Your task to perform on an android device: turn off notifications settings in the gmail app Image 0: 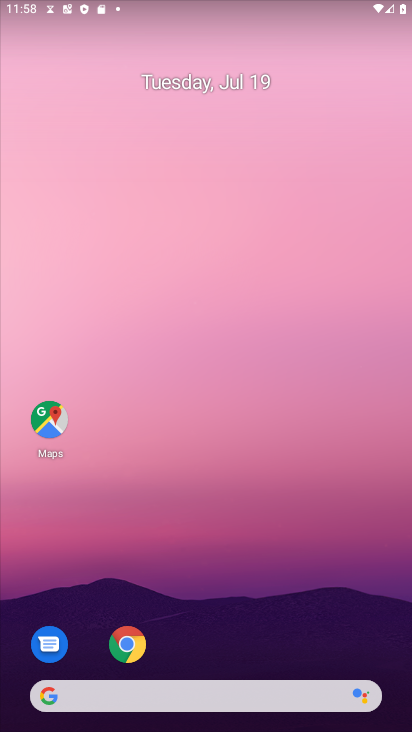
Step 0: press home button
Your task to perform on an android device: turn off notifications settings in the gmail app Image 1: 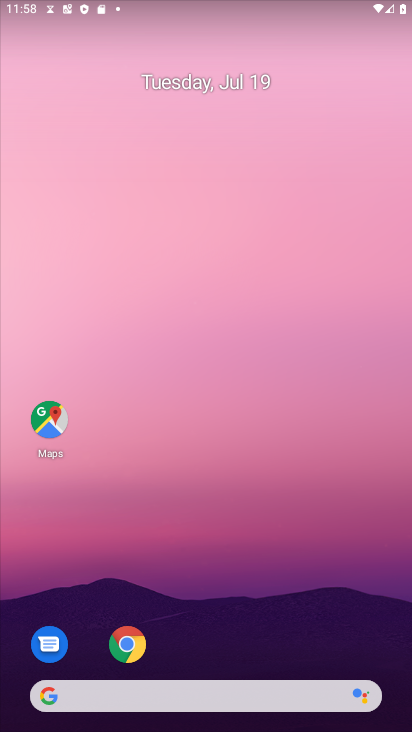
Step 1: drag from (337, 604) to (344, 92)
Your task to perform on an android device: turn off notifications settings in the gmail app Image 2: 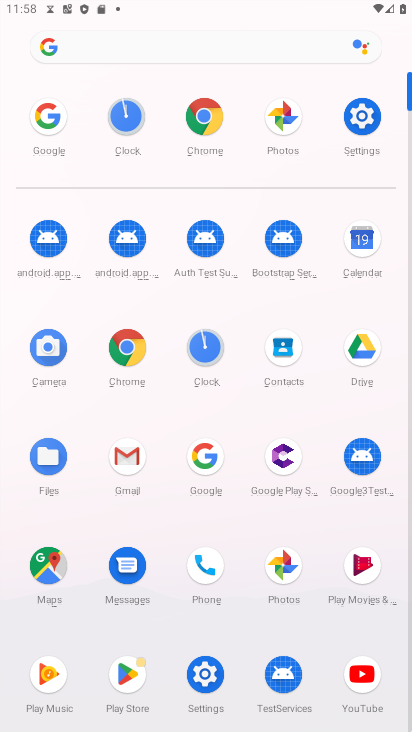
Step 2: click (138, 475)
Your task to perform on an android device: turn off notifications settings in the gmail app Image 3: 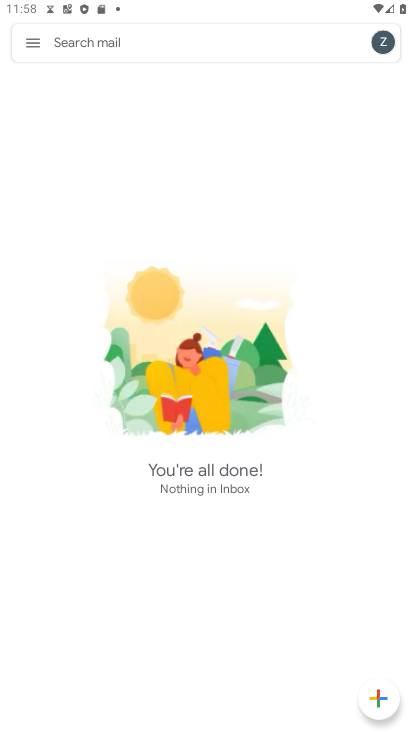
Step 3: press home button
Your task to perform on an android device: turn off notifications settings in the gmail app Image 4: 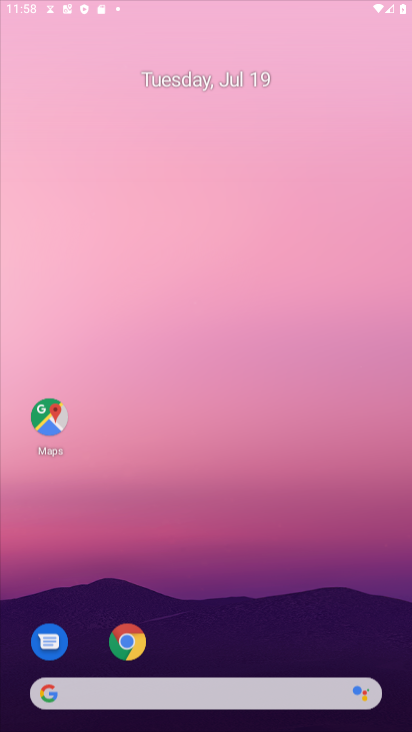
Step 4: drag from (385, 619) to (397, 182)
Your task to perform on an android device: turn off notifications settings in the gmail app Image 5: 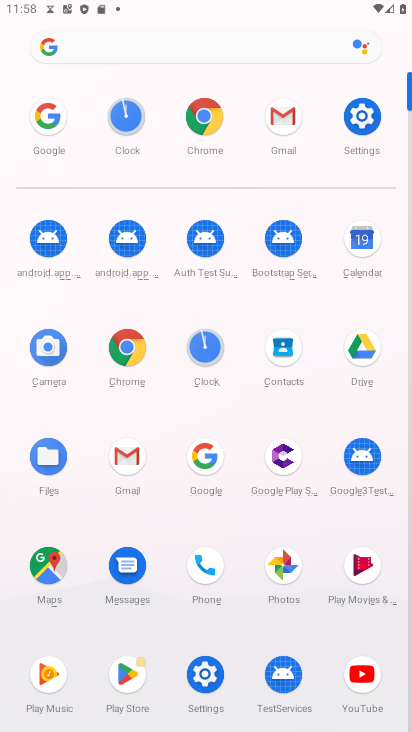
Step 5: click (113, 470)
Your task to perform on an android device: turn off notifications settings in the gmail app Image 6: 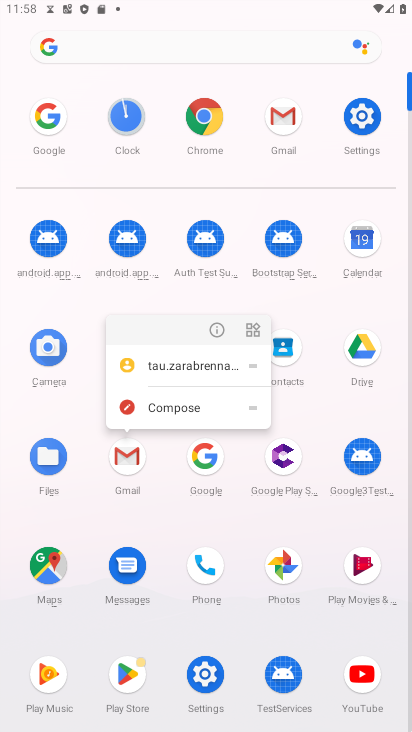
Step 6: click (195, 336)
Your task to perform on an android device: turn off notifications settings in the gmail app Image 7: 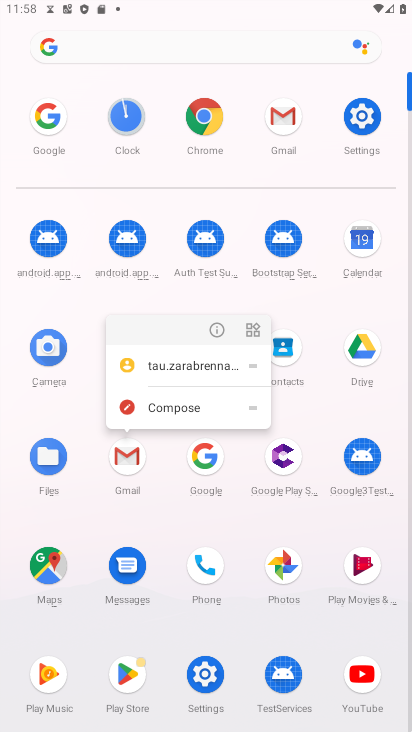
Step 7: click (221, 341)
Your task to perform on an android device: turn off notifications settings in the gmail app Image 8: 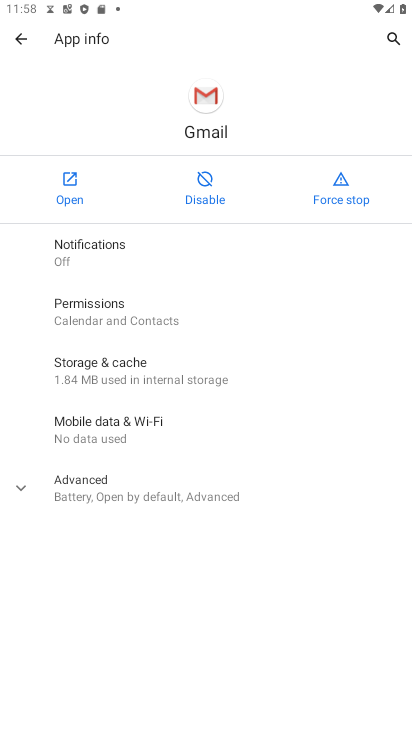
Step 8: click (130, 254)
Your task to perform on an android device: turn off notifications settings in the gmail app Image 9: 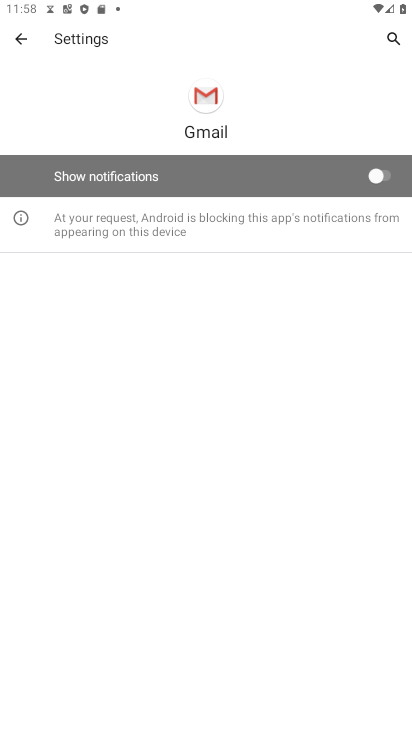
Step 9: task complete